Your task to perform on an android device: set an alarm Image 0: 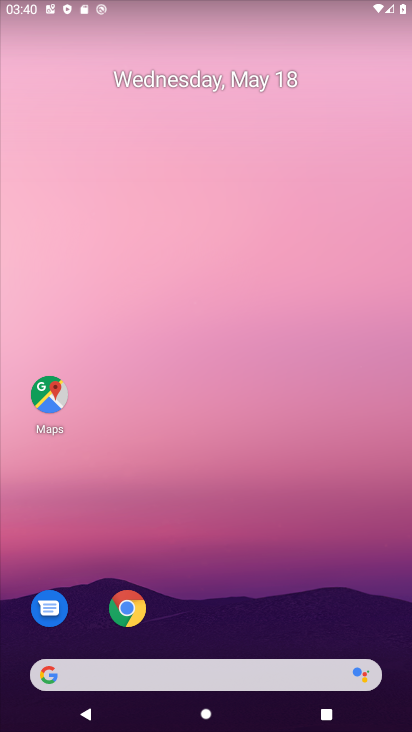
Step 0: drag from (179, 622) to (261, 9)
Your task to perform on an android device: set an alarm Image 1: 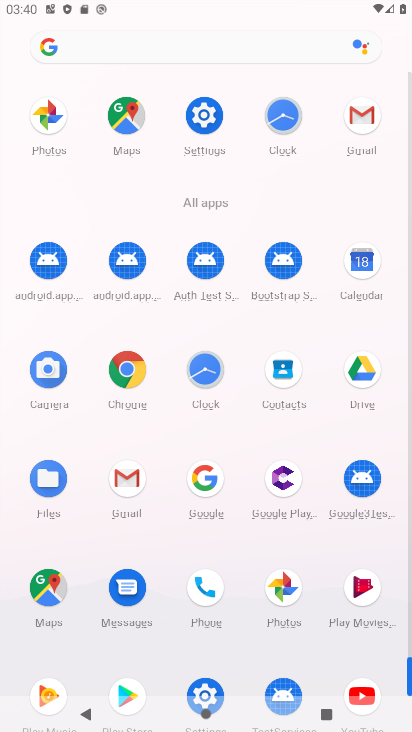
Step 1: click (304, 104)
Your task to perform on an android device: set an alarm Image 2: 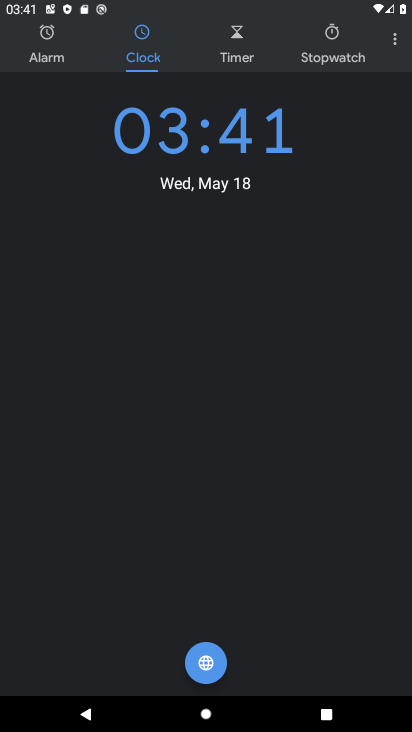
Step 2: click (32, 35)
Your task to perform on an android device: set an alarm Image 3: 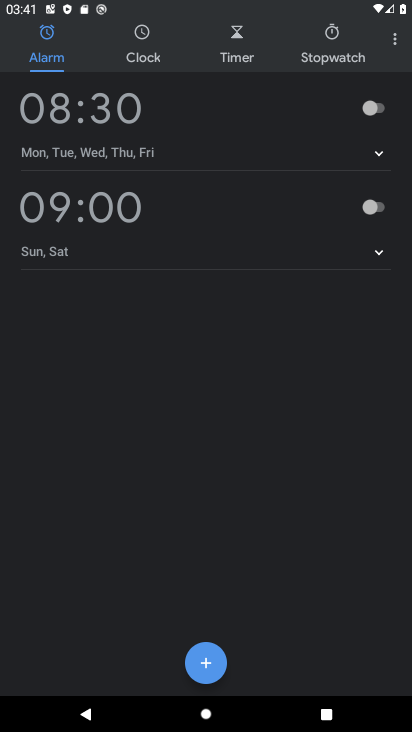
Step 3: click (373, 203)
Your task to perform on an android device: set an alarm Image 4: 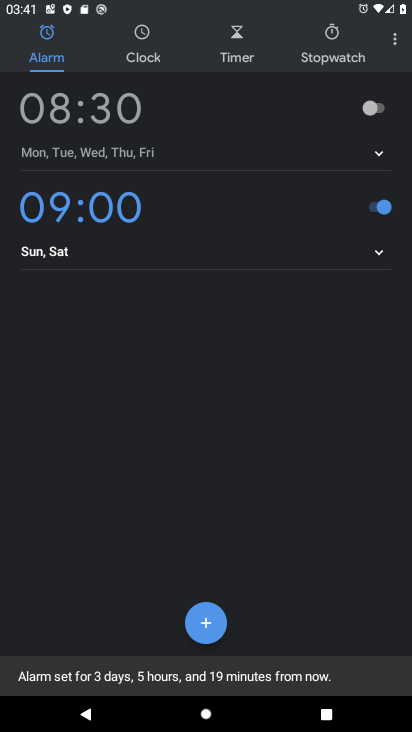
Step 4: task complete